Your task to perform on an android device: uninstall "Google Play Games" Image 0: 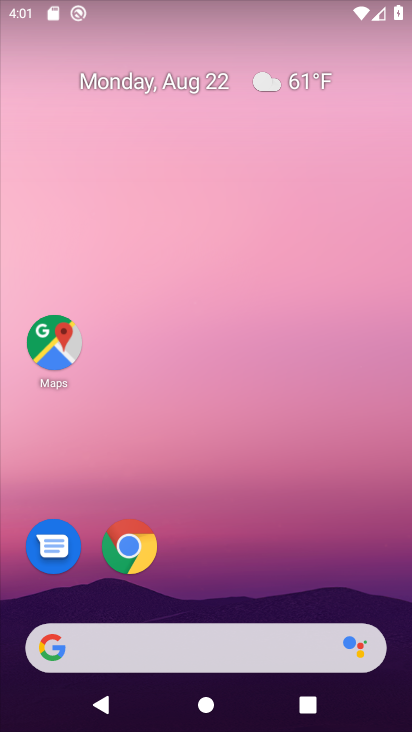
Step 0: drag from (387, 606) to (357, 131)
Your task to perform on an android device: uninstall "Google Play Games" Image 1: 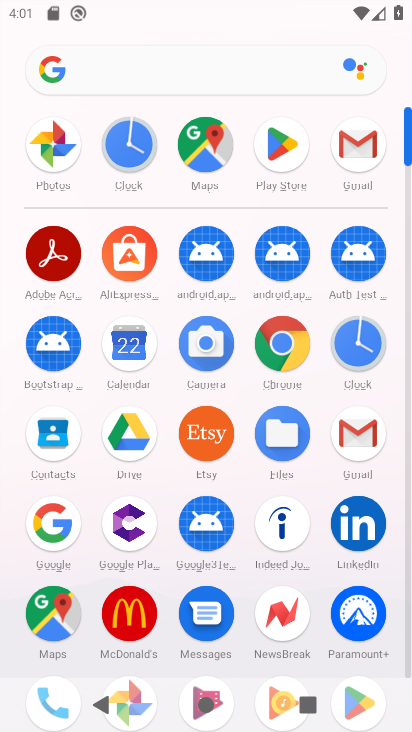
Step 1: drag from (245, 576) to (237, 313)
Your task to perform on an android device: uninstall "Google Play Games" Image 2: 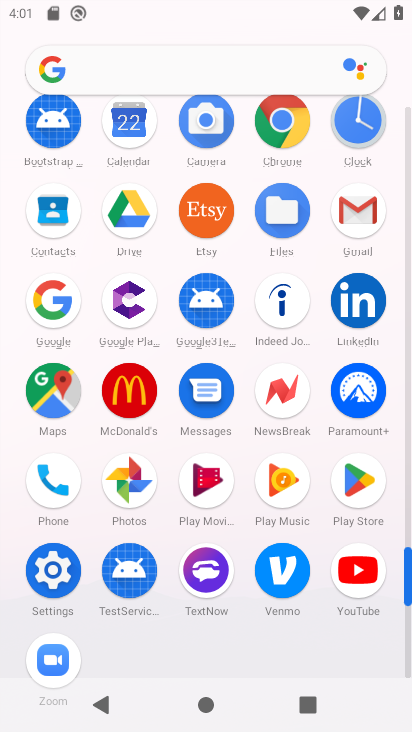
Step 2: click (359, 477)
Your task to perform on an android device: uninstall "Google Play Games" Image 3: 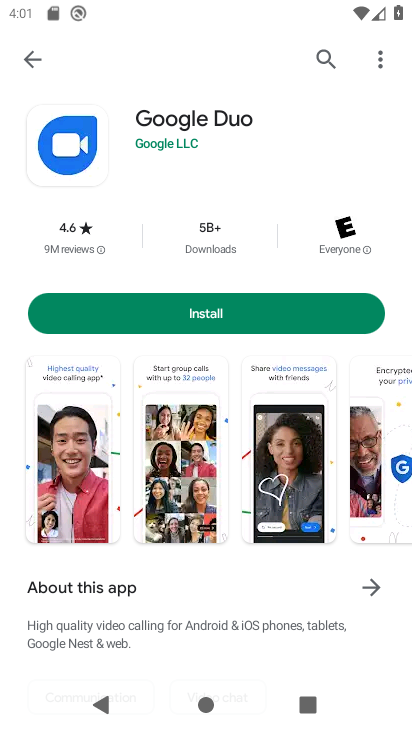
Step 3: click (322, 52)
Your task to perform on an android device: uninstall "Google Play Games" Image 4: 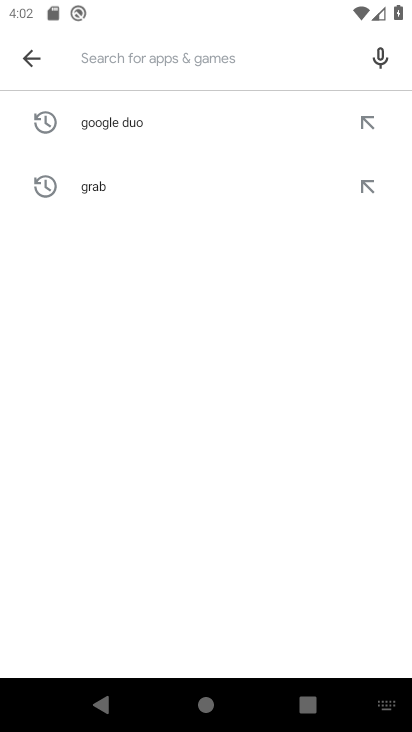
Step 4: type "Google Play Games"
Your task to perform on an android device: uninstall "Google Play Games" Image 5: 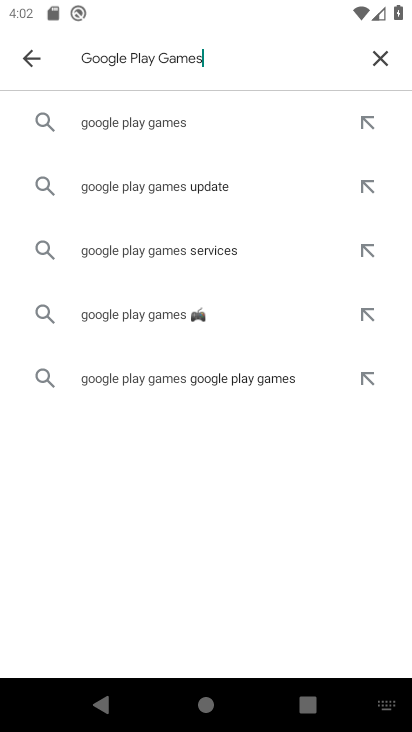
Step 5: click (133, 123)
Your task to perform on an android device: uninstall "Google Play Games" Image 6: 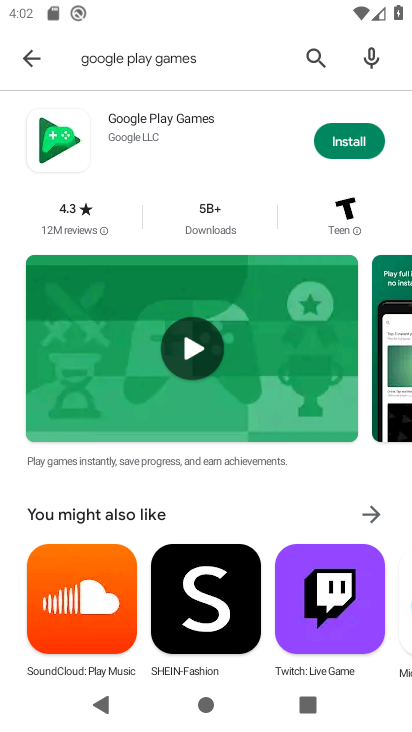
Step 6: click (150, 123)
Your task to perform on an android device: uninstall "Google Play Games" Image 7: 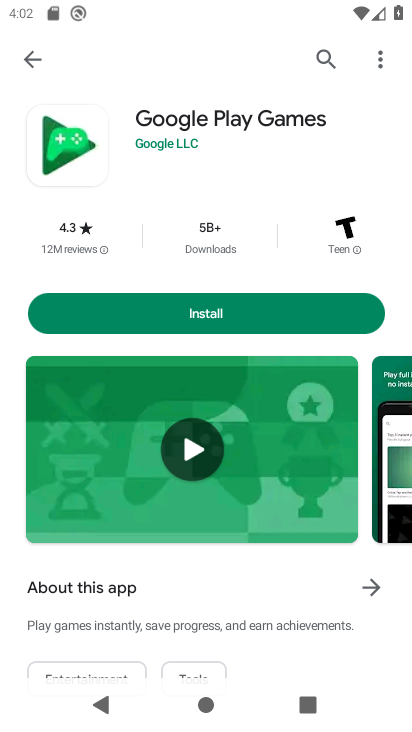
Step 7: task complete